Your task to perform on an android device: toggle improve location accuracy Image 0: 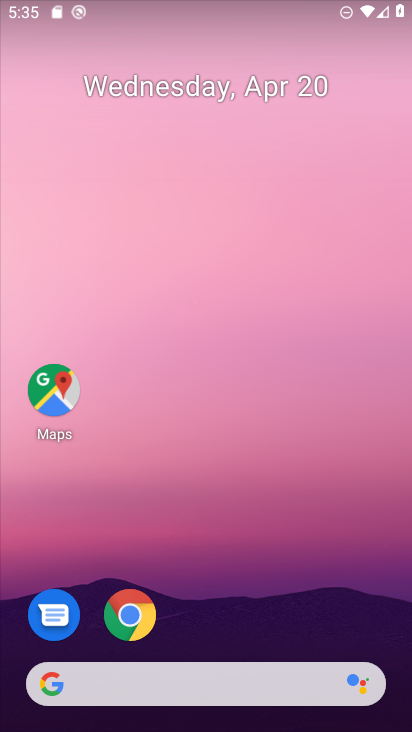
Step 0: drag from (226, 342) to (219, 112)
Your task to perform on an android device: toggle improve location accuracy Image 1: 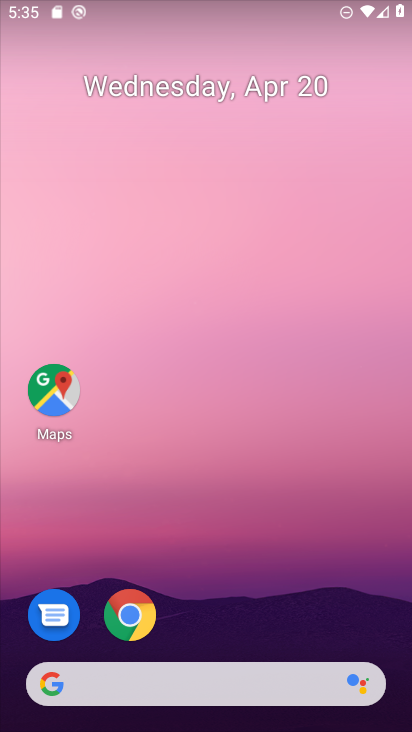
Step 1: drag from (269, 341) to (273, 6)
Your task to perform on an android device: toggle improve location accuracy Image 2: 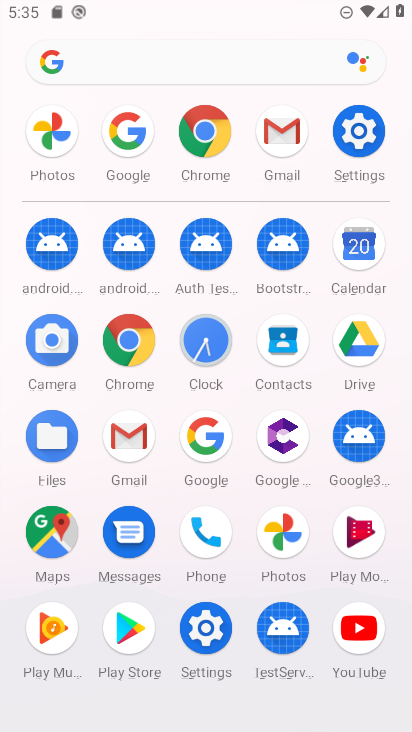
Step 2: click (356, 129)
Your task to perform on an android device: toggle improve location accuracy Image 3: 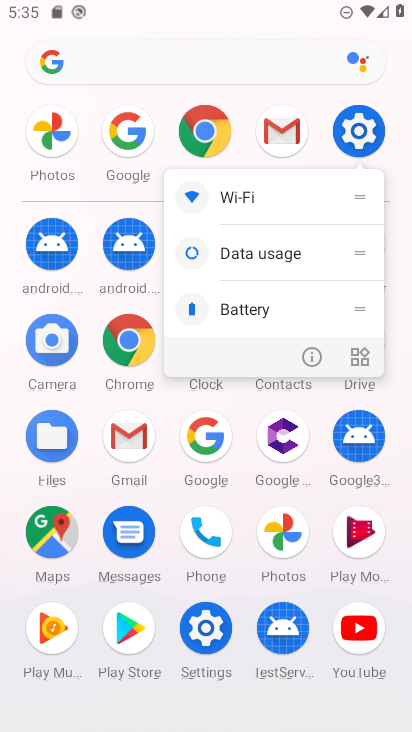
Step 3: click (353, 131)
Your task to perform on an android device: toggle improve location accuracy Image 4: 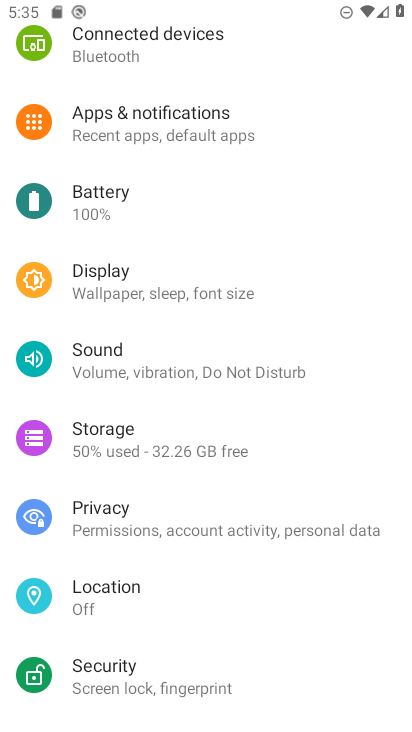
Step 4: click (152, 604)
Your task to perform on an android device: toggle improve location accuracy Image 5: 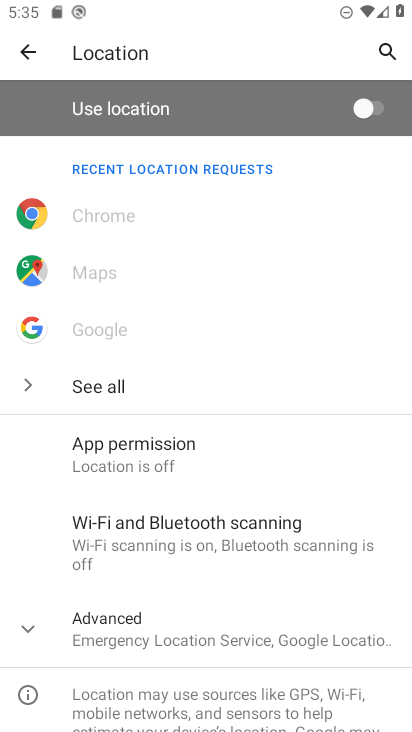
Step 5: click (188, 636)
Your task to perform on an android device: toggle improve location accuracy Image 6: 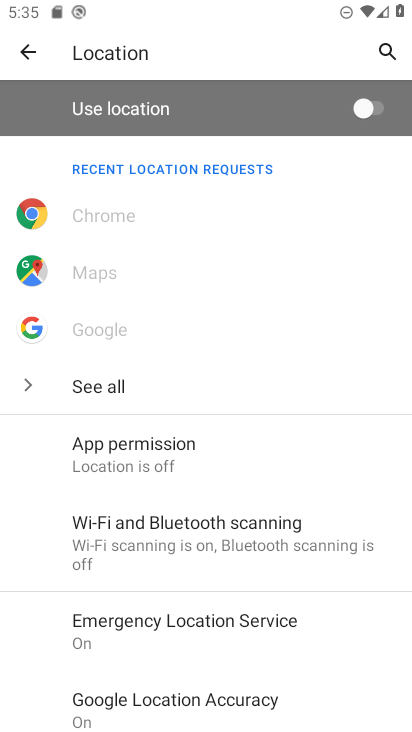
Step 6: click (222, 704)
Your task to perform on an android device: toggle improve location accuracy Image 7: 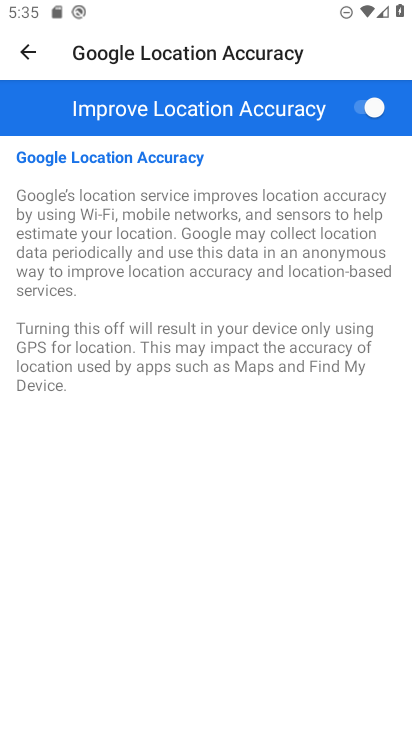
Step 7: click (354, 108)
Your task to perform on an android device: toggle improve location accuracy Image 8: 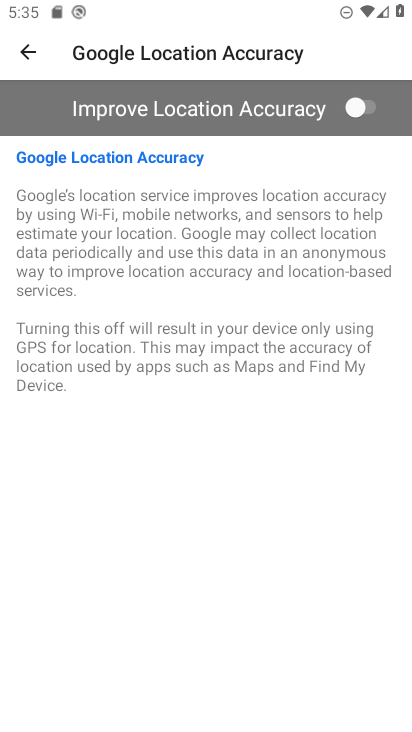
Step 8: task complete